Your task to perform on an android device: Clear the shopping cart on costco.com. Search for bose quietcomfort 35 on costco.com, select the first entry, add it to the cart, then select checkout. Image 0: 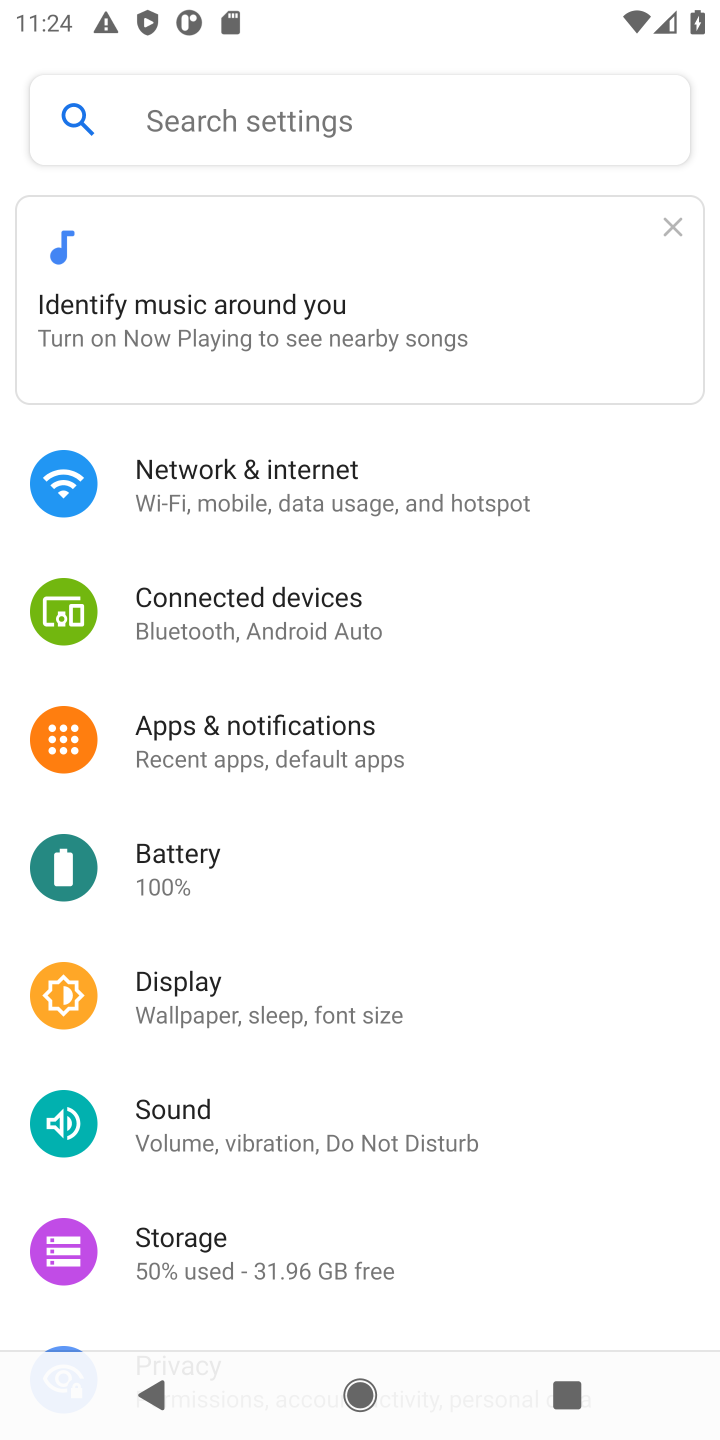
Step 0: press home button
Your task to perform on an android device: Clear the shopping cart on costco.com. Search for bose quietcomfort 35 on costco.com, select the first entry, add it to the cart, then select checkout. Image 1: 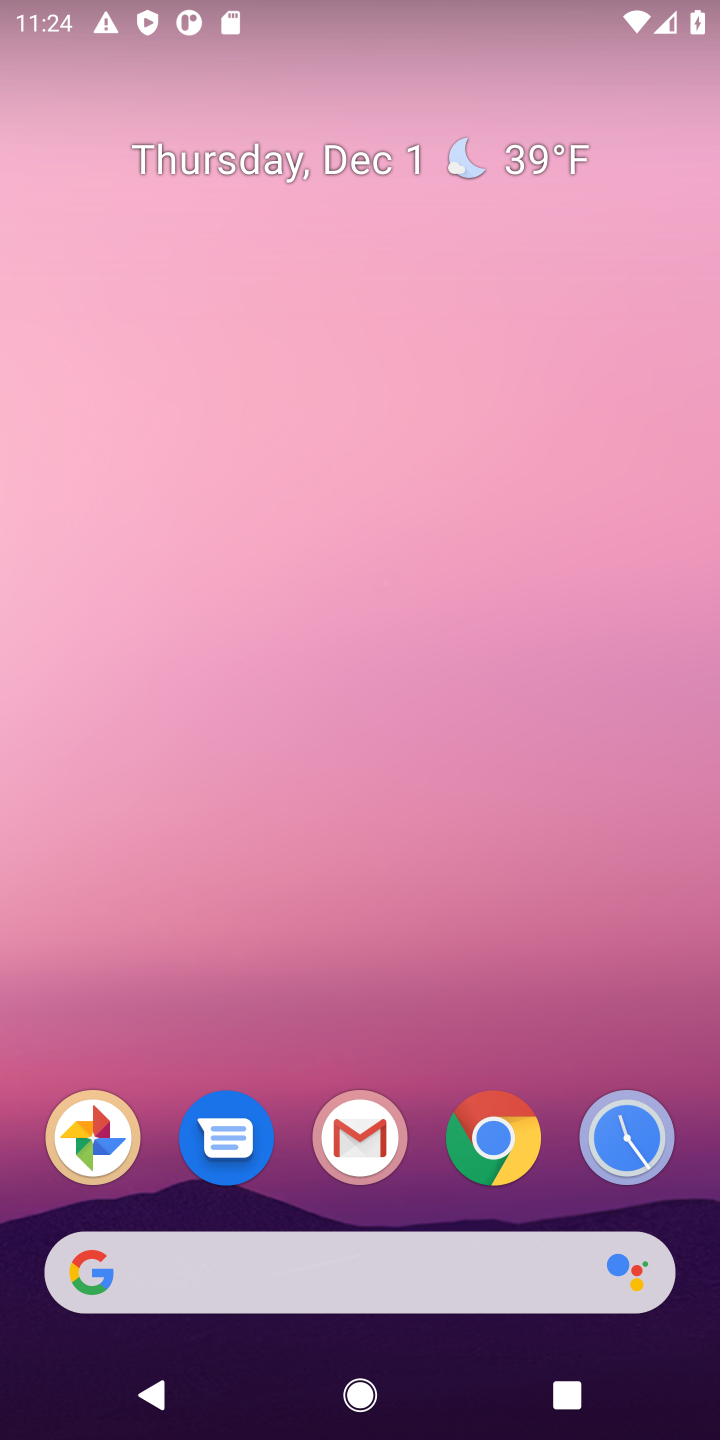
Step 1: click (480, 1140)
Your task to perform on an android device: Clear the shopping cart on costco.com. Search for bose quietcomfort 35 on costco.com, select the first entry, add it to the cart, then select checkout. Image 2: 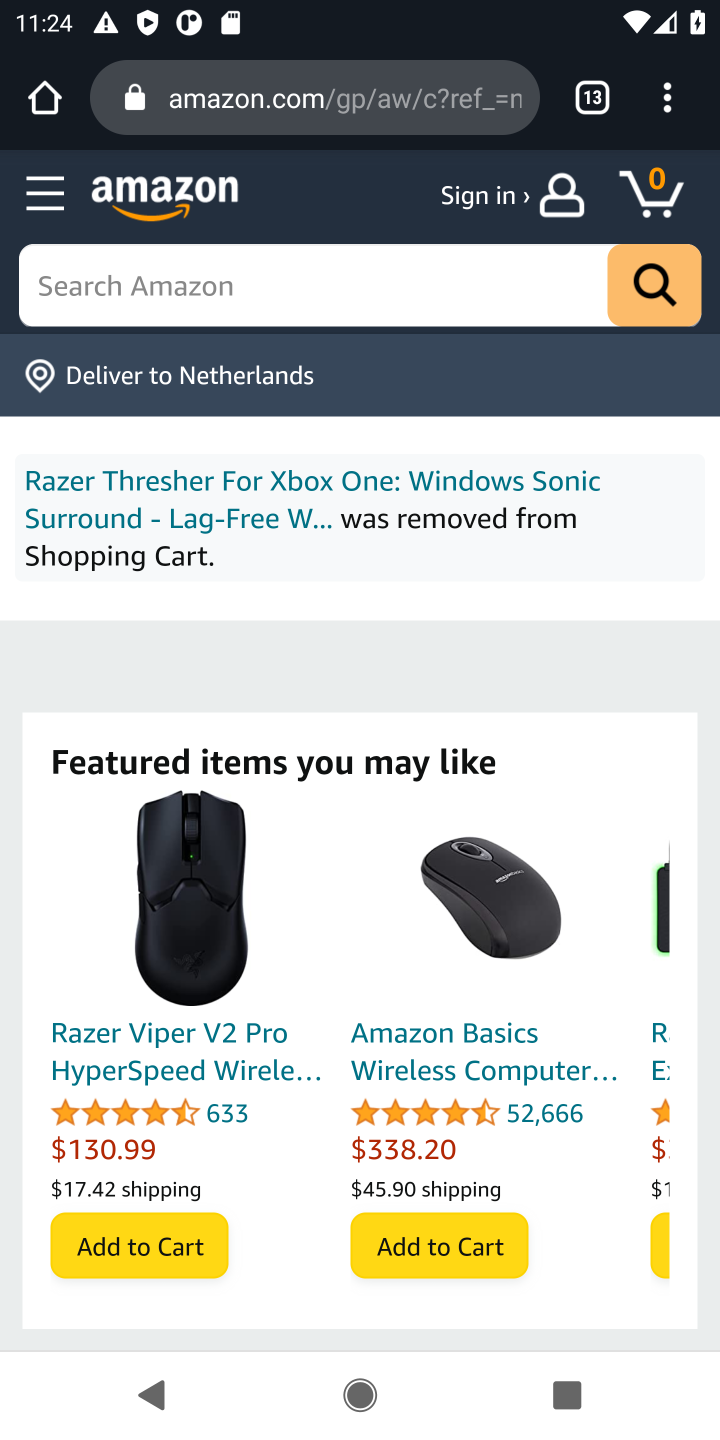
Step 2: click (391, 274)
Your task to perform on an android device: Clear the shopping cart on costco.com. Search for bose quietcomfort 35 on costco.com, select the first entry, add it to the cart, then select checkout. Image 3: 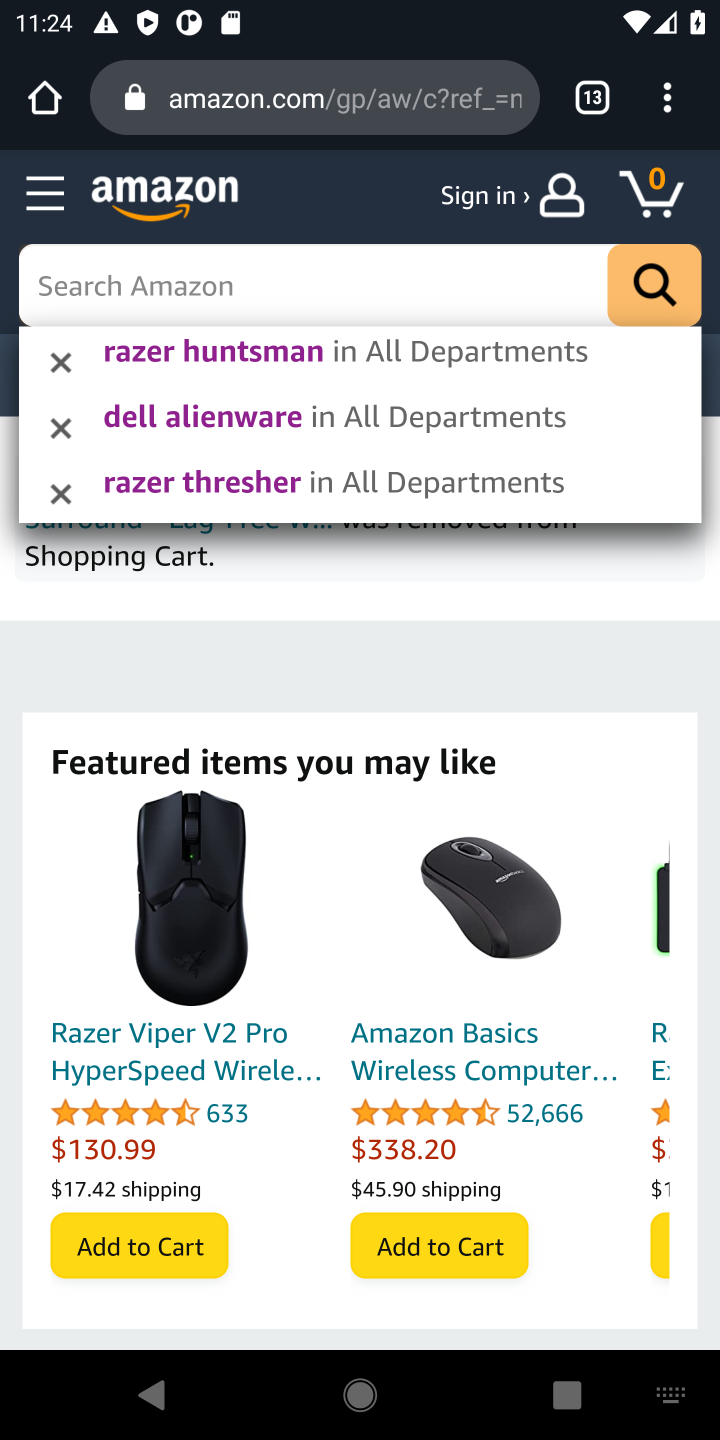
Step 3: click (431, 89)
Your task to perform on an android device: Clear the shopping cart on costco.com. Search for bose quietcomfort 35 on costco.com, select the first entry, add it to the cart, then select checkout. Image 4: 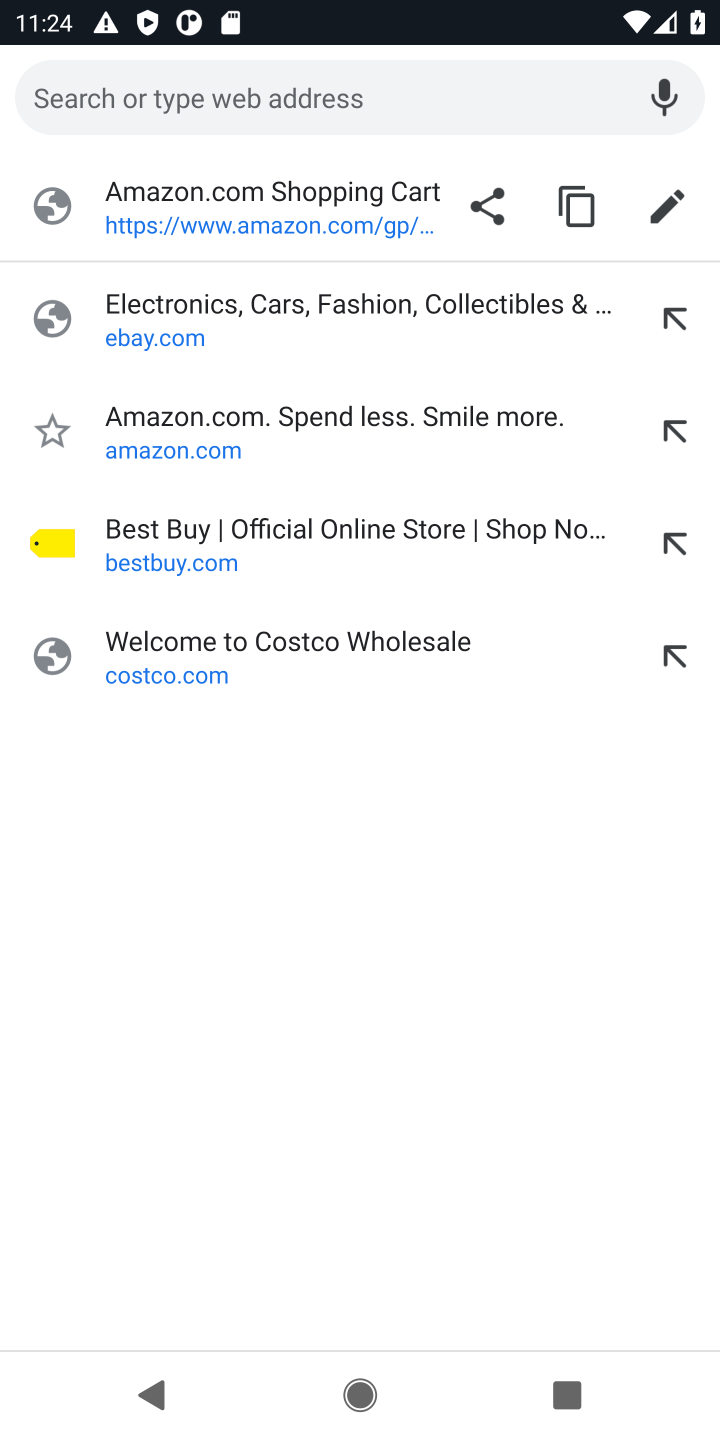
Step 4: type "costco.com"
Your task to perform on an android device: Clear the shopping cart on costco.com. Search for bose quietcomfort 35 on costco.com, select the first entry, add it to the cart, then select checkout. Image 5: 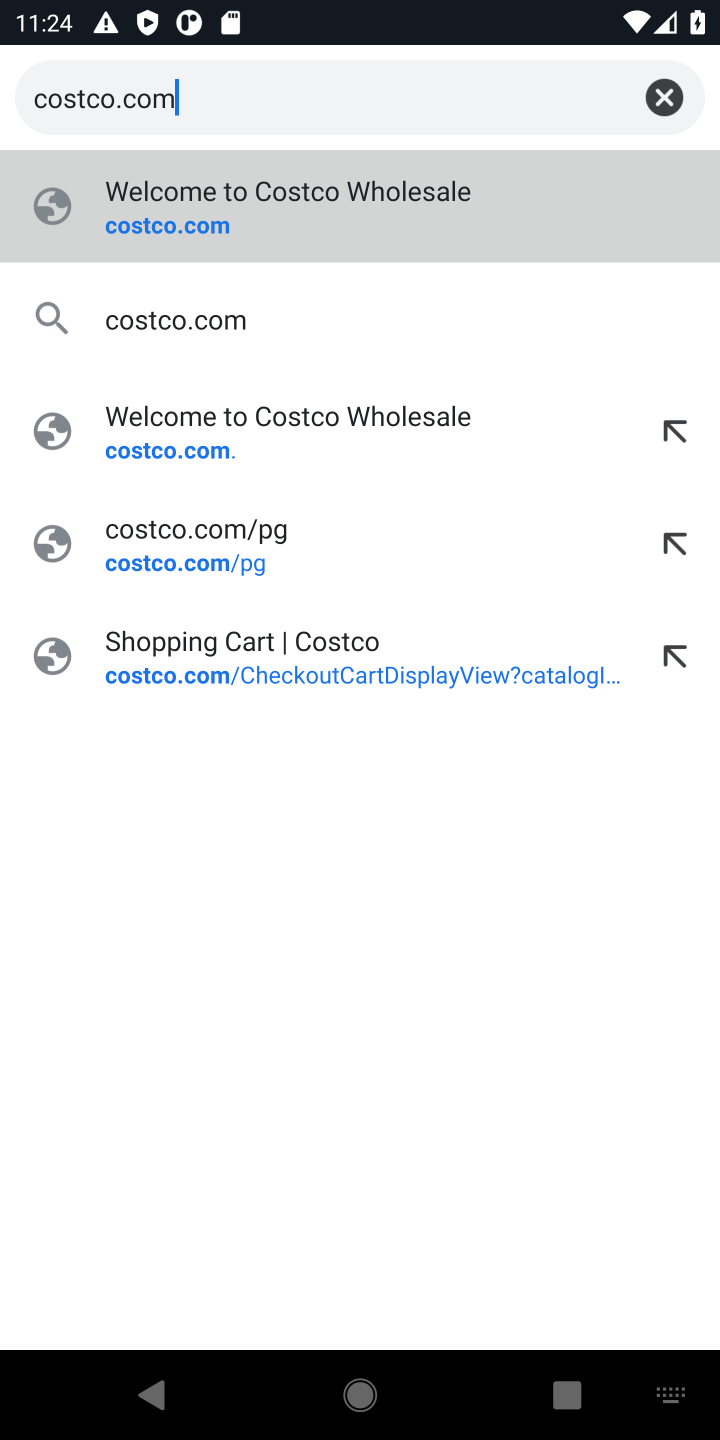
Step 5: click (348, 201)
Your task to perform on an android device: Clear the shopping cart on costco.com. Search for bose quietcomfort 35 on costco.com, select the first entry, add it to the cart, then select checkout. Image 6: 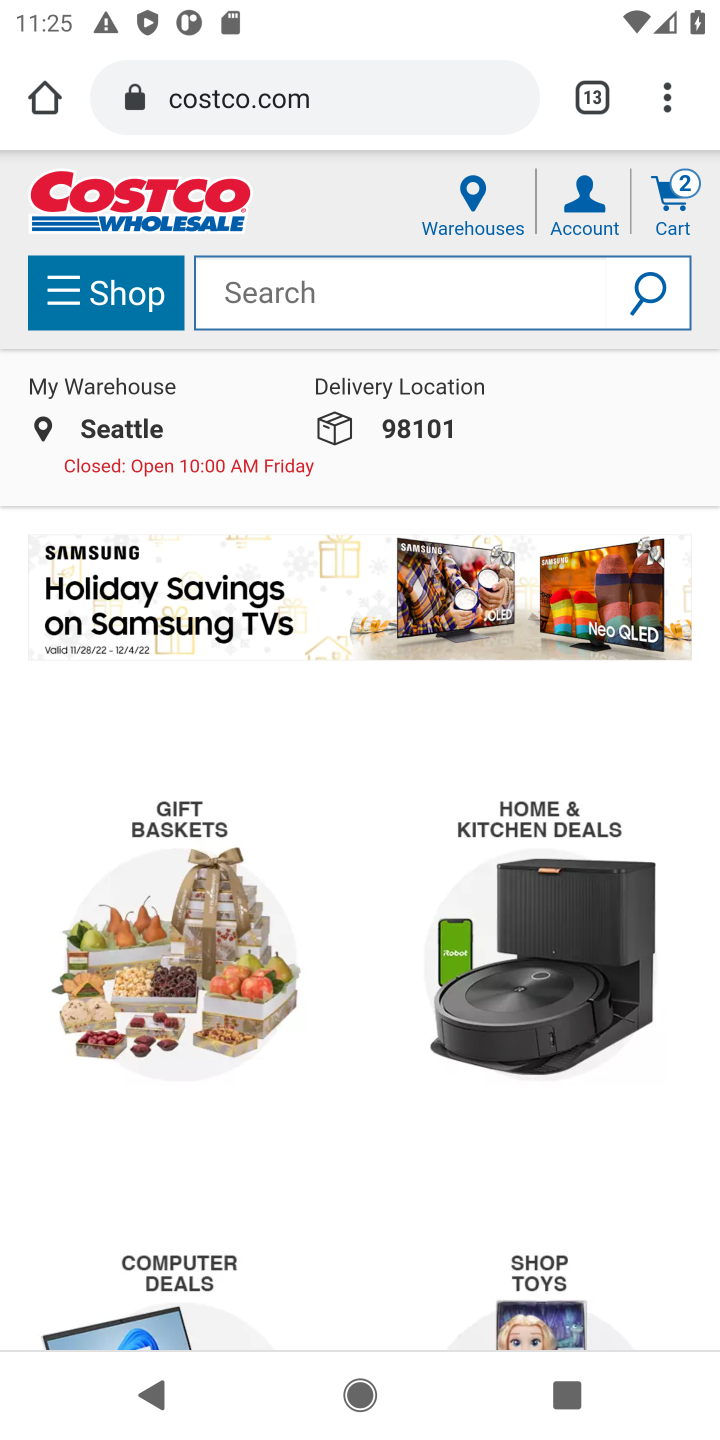
Step 6: click (415, 311)
Your task to perform on an android device: Clear the shopping cart on costco.com. Search for bose quietcomfort 35 on costco.com, select the first entry, add it to the cart, then select checkout. Image 7: 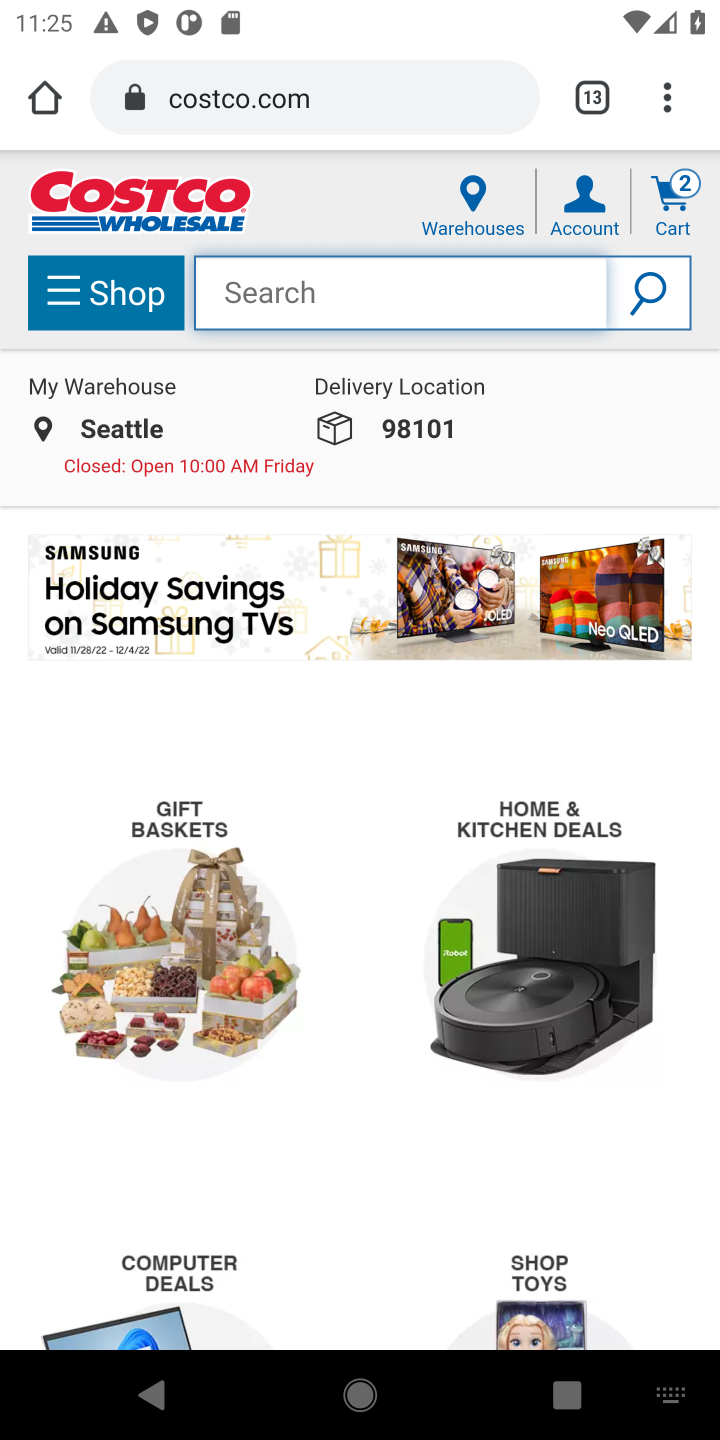
Step 7: type "bose quietcomfort 35"
Your task to perform on an android device: Clear the shopping cart on costco.com. Search for bose quietcomfort 35 on costco.com, select the first entry, add it to the cart, then select checkout. Image 8: 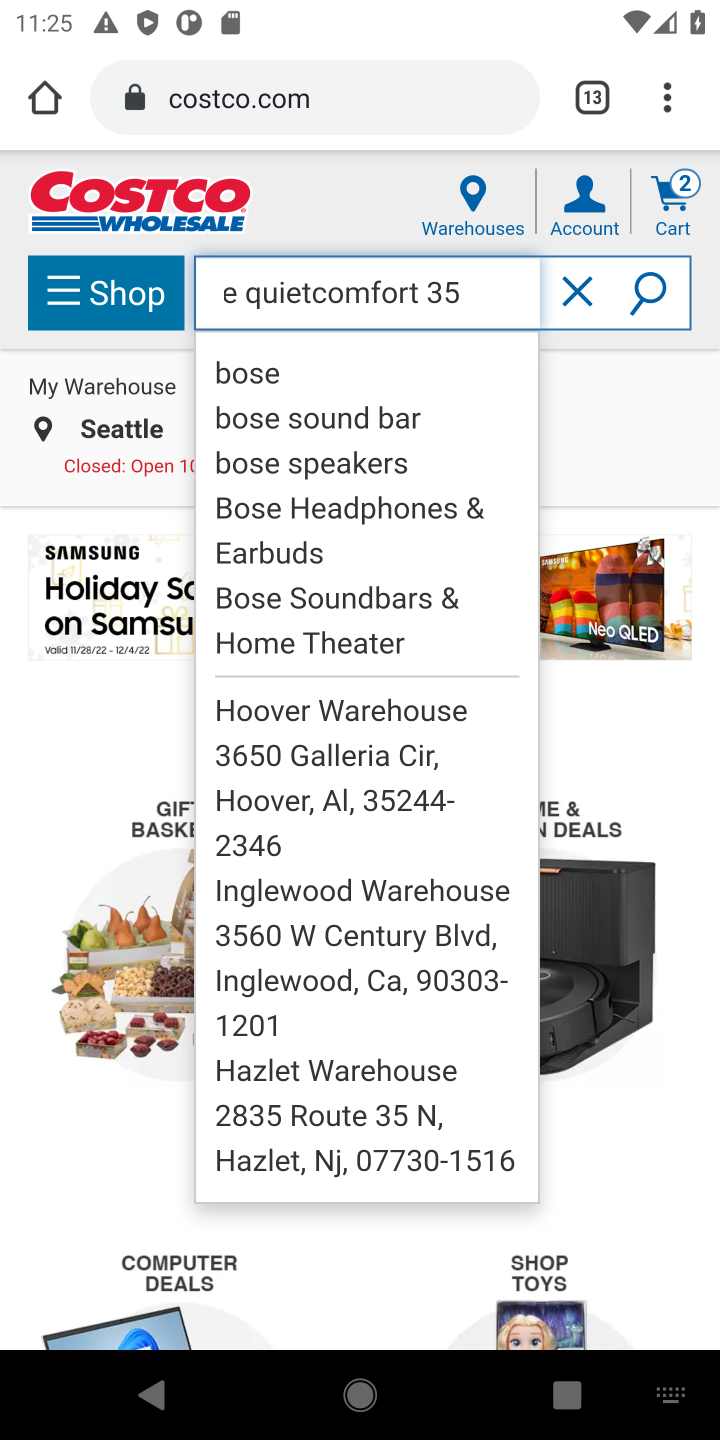
Step 8: click (657, 294)
Your task to perform on an android device: Clear the shopping cart on costco.com. Search for bose quietcomfort 35 on costco.com, select the first entry, add it to the cart, then select checkout. Image 9: 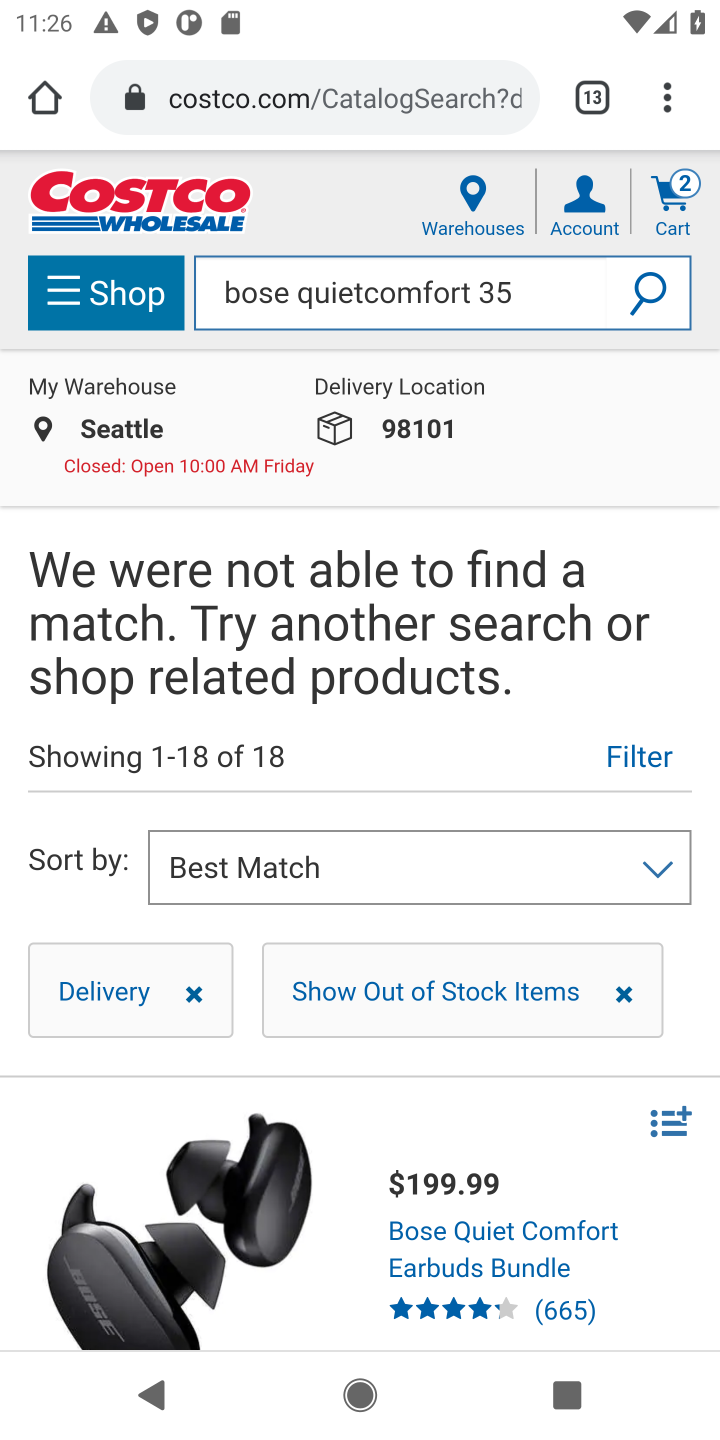
Step 9: click (410, 1201)
Your task to perform on an android device: Clear the shopping cart on costco.com. Search for bose quietcomfort 35 on costco.com, select the first entry, add it to the cart, then select checkout. Image 10: 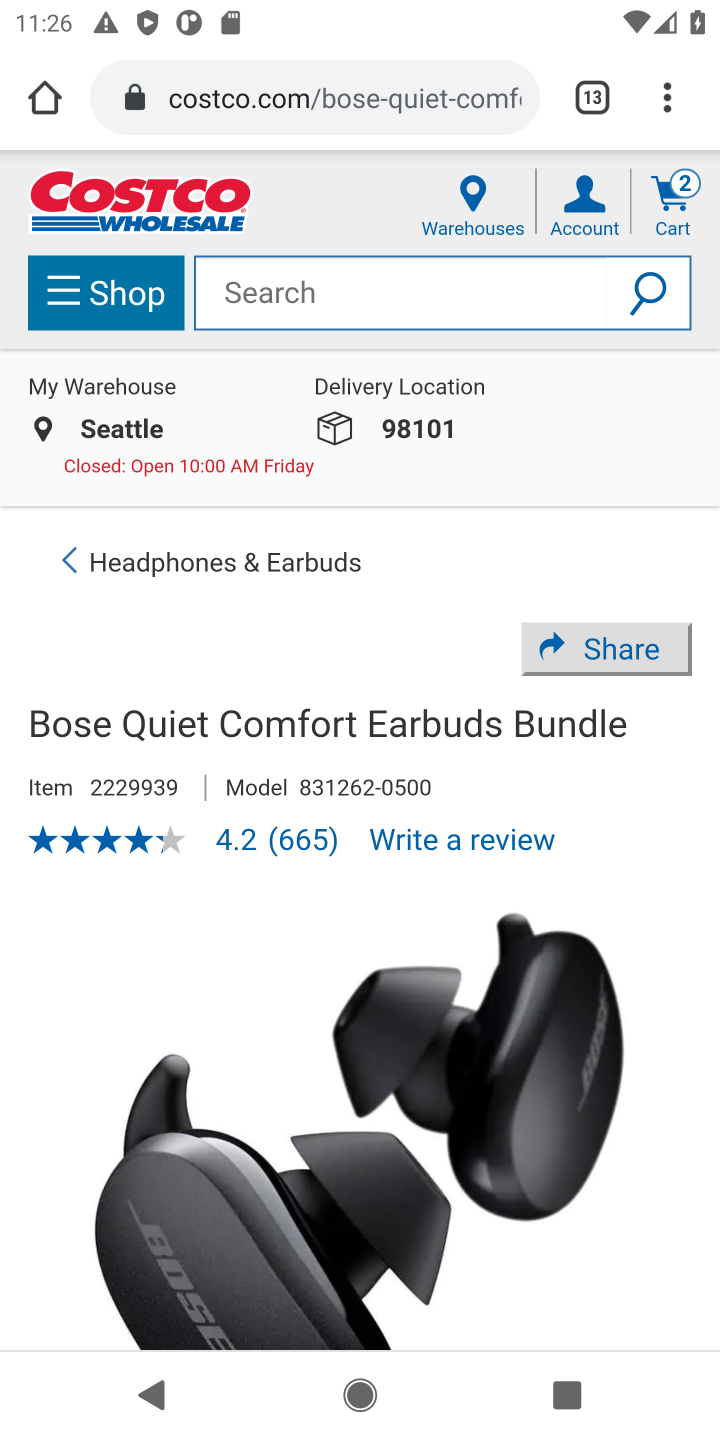
Step 10: drag from (404, 1088) to (555, 560)
Your task to perform on an android device: Clear the shopping cart on costco.com. Search for bose quietcomfort 35 on costco.com, select the first entry, add it to the cart, then select checkout. Image 11: 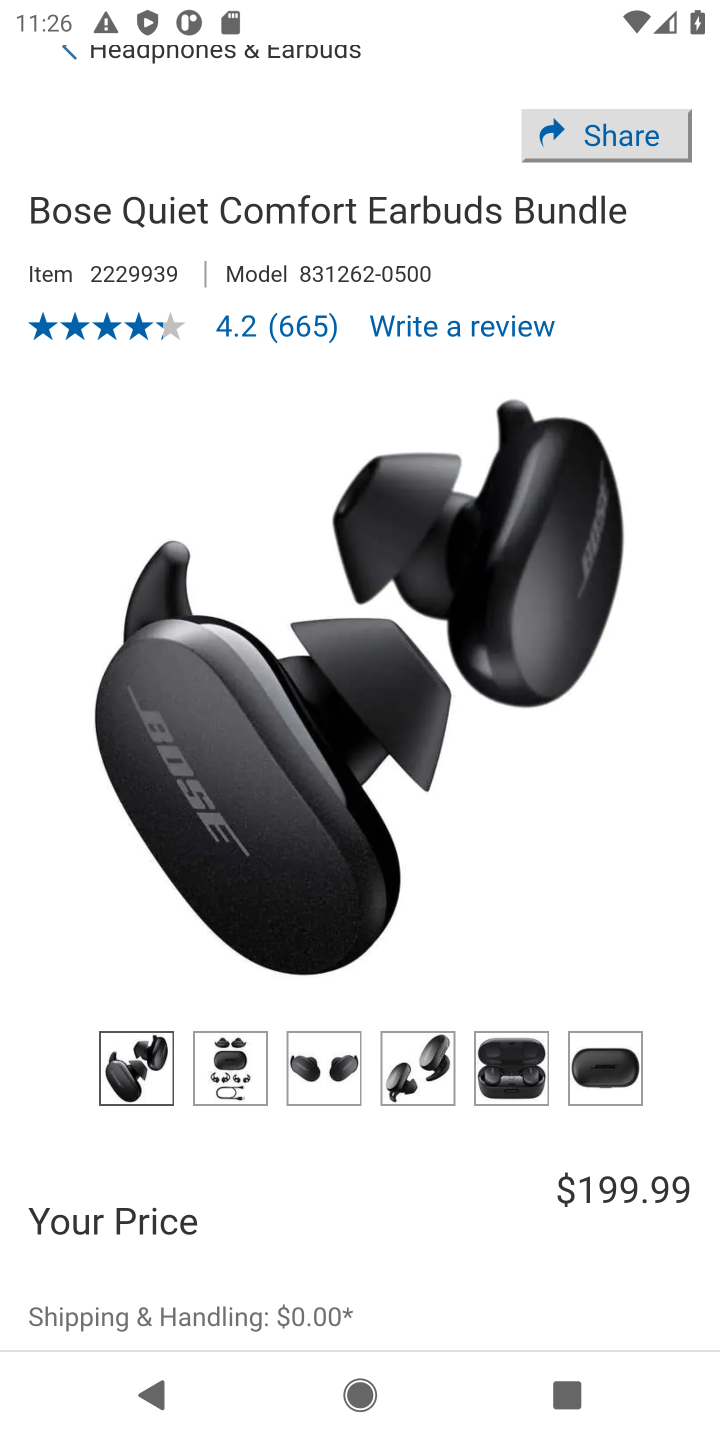
Step 11: drag from (477, 1187) to (506, 642)
Your task to perform on an android device: Clear the shopping cart on costco.com. Search for bose quietcomfort 35 on costco.com, select the first entry, add it to the cart, then select checkout. Image 12: 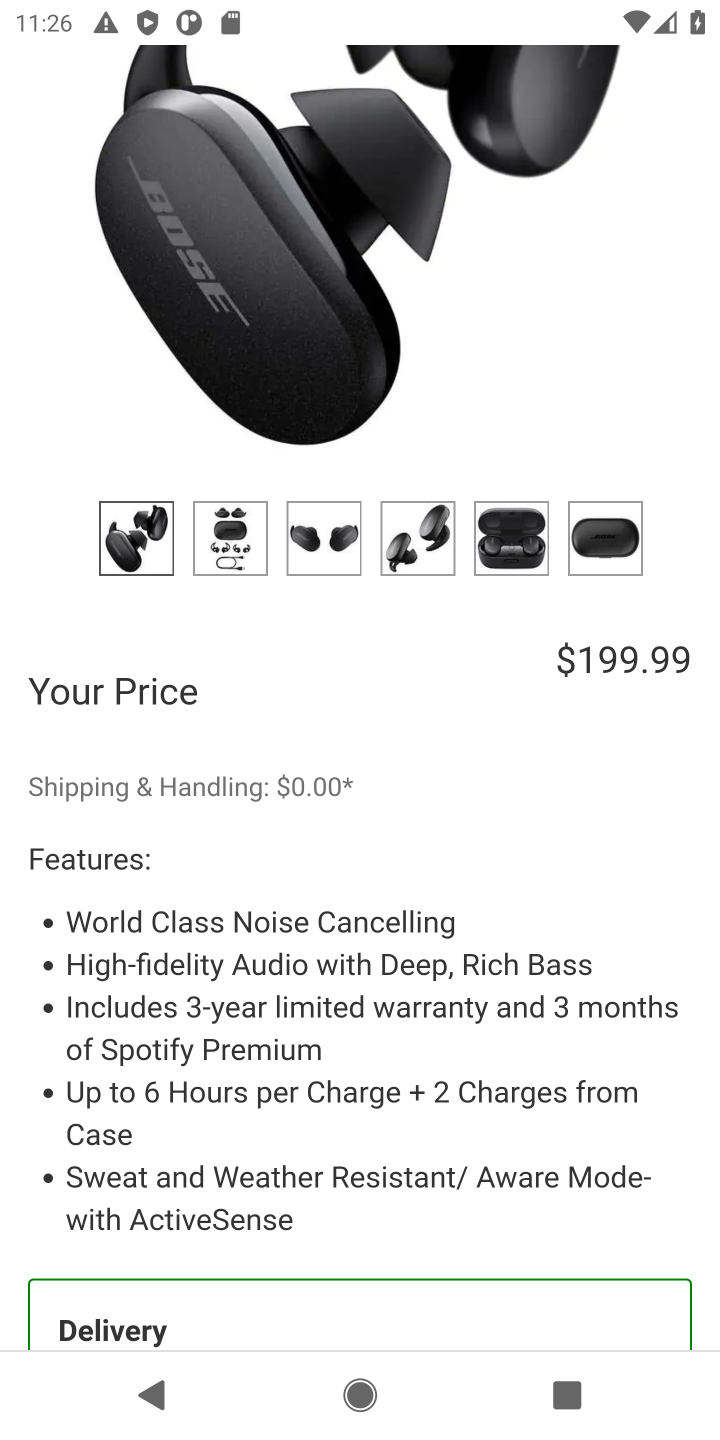
Step 12: drag from (449, 1104) to (499, 504)
Your task to perform on an android device: Clear the shopping cart on costco.com. Search for bose quietcomfort 35 on costco.com, select the first entry, add it to the cart, then select checkout. Image 13: 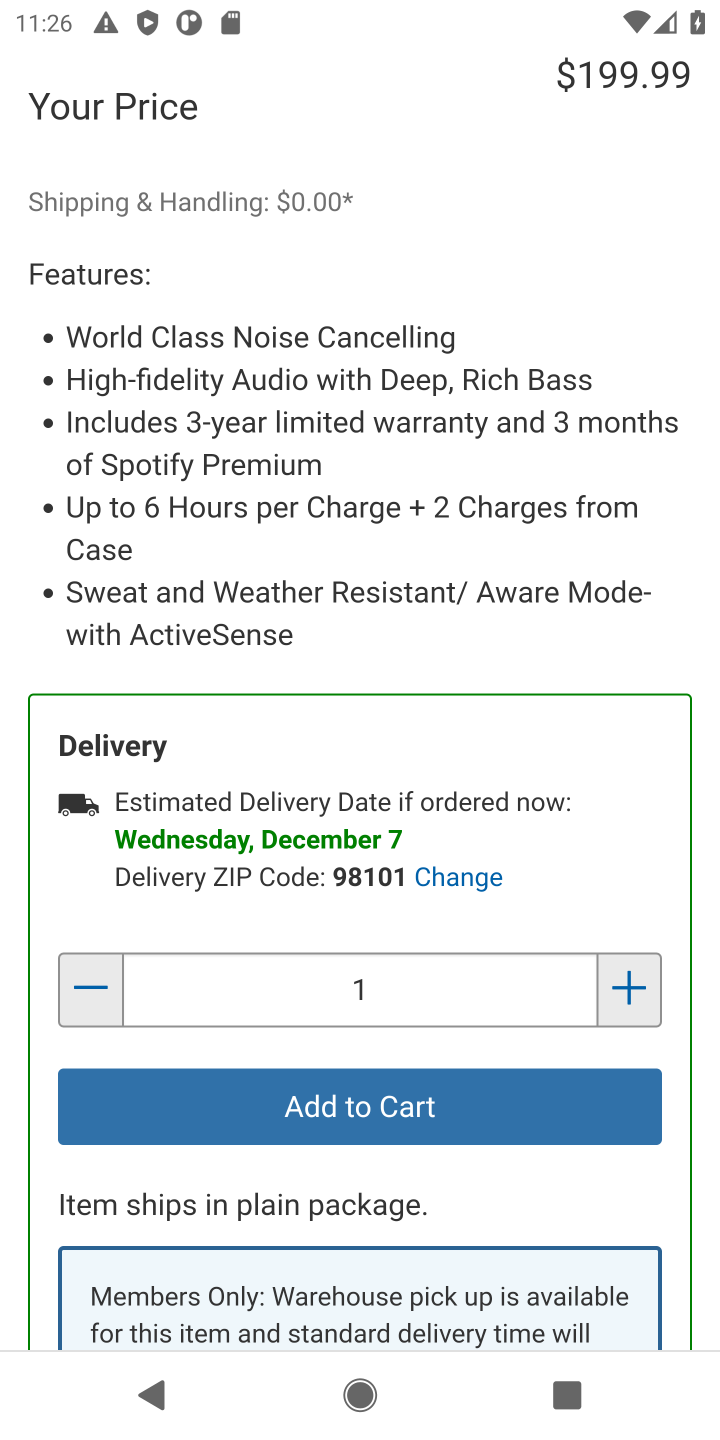
Step 13: click (348, 1112)
Your task to perform on an android device: Clear the shopping cart on costco.com. Search for bose quietcomfort 35 on costco.com, select the first entry, add it to the cart, then select checkout. Image 14: 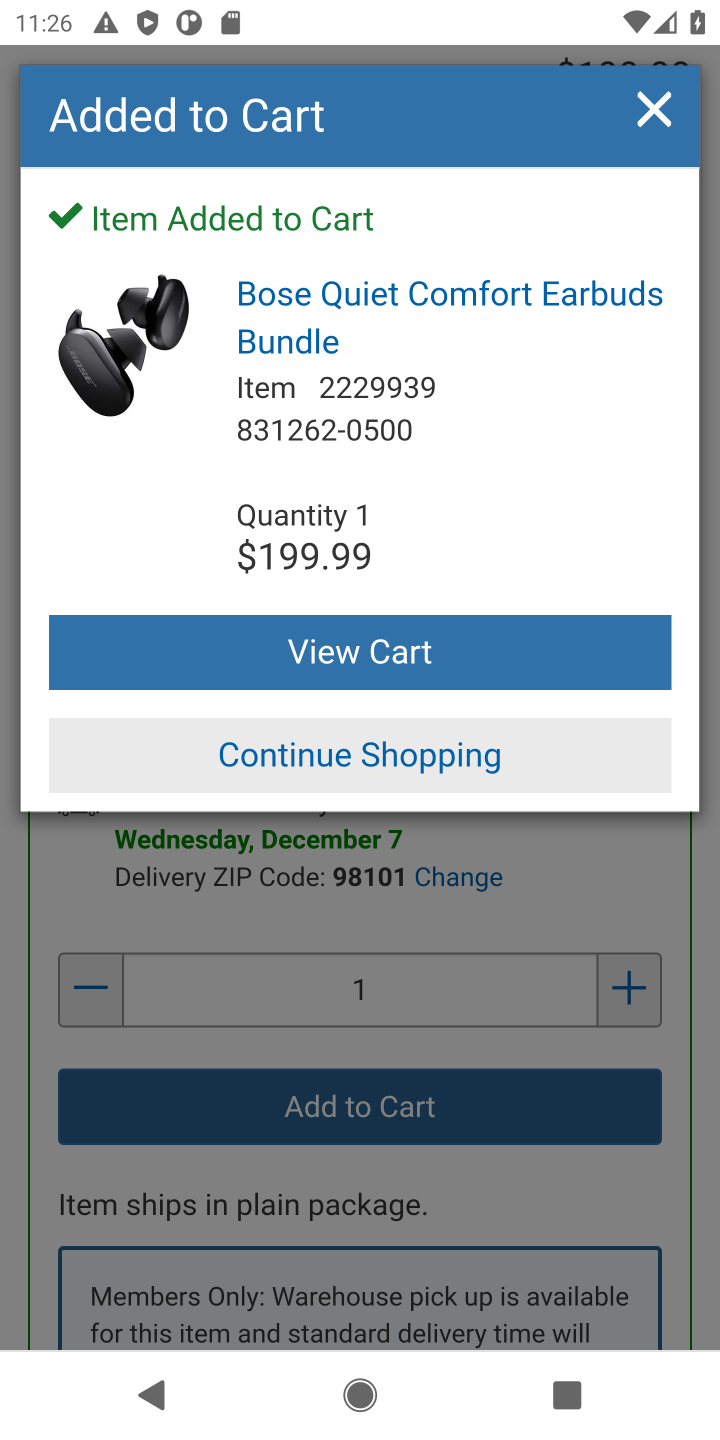
Step 14: click (491, 674)
Your task to perform on an android device: Clear the shopping cart on costco.com. Search for bose quietcomfort 35 on costco.com, select the first entry, add it to the cart, then select checkout. Image 15: 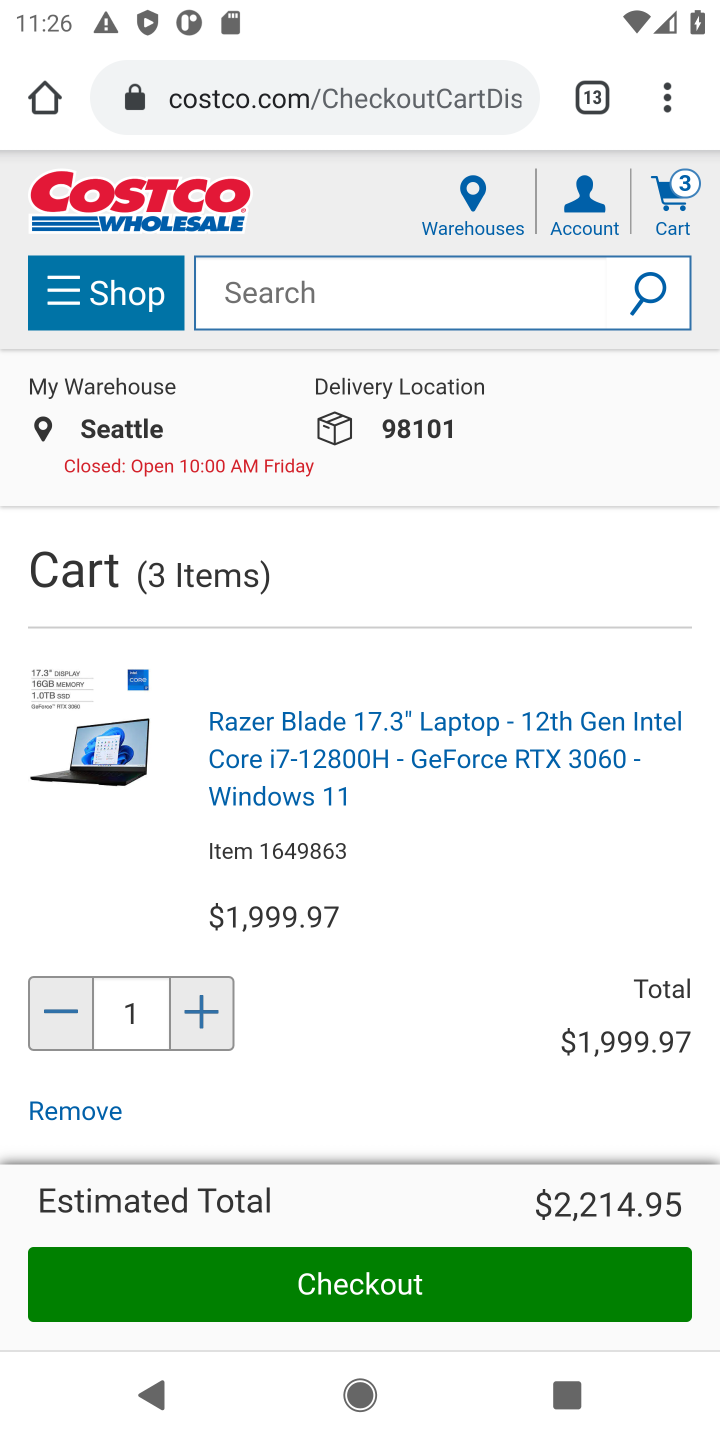
Step 15: click (478, 1290)
Your task to perform on an android device: Clear the shopping cart on costco.com. Search for bose quietcomfort 35 on costco.com, select the first entry, add it to the cart, then select checkout. Image 16: 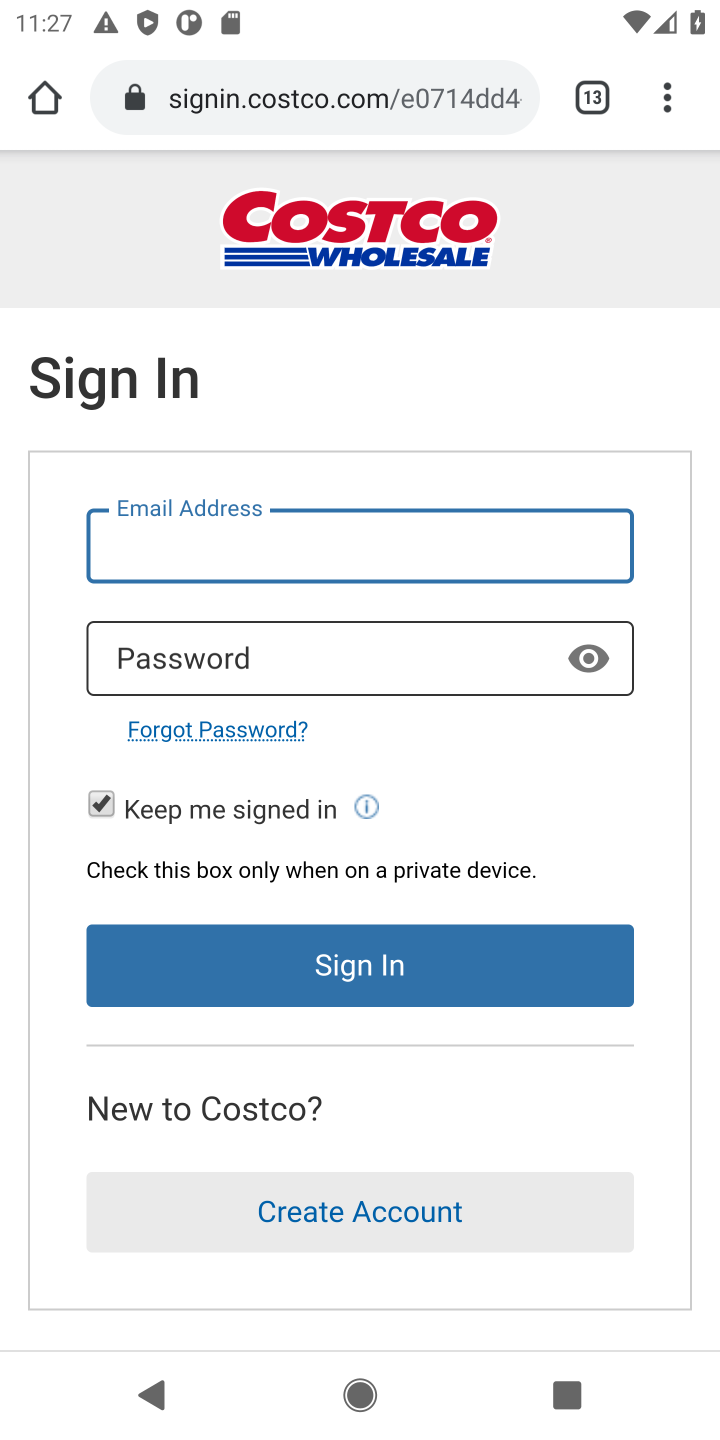
Step 16: task complete